Your task to perform on an android device: Open notification settings Image 0: 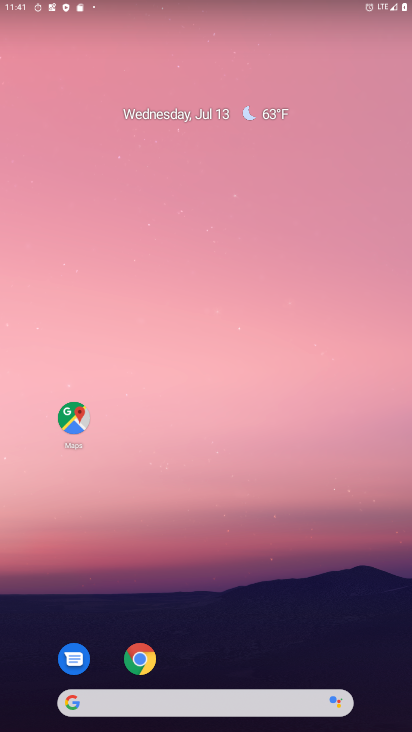
Step 0: drag from (267, 639) to (198, 103)
Your task to perform on an android device: Open notification settings Image 1: 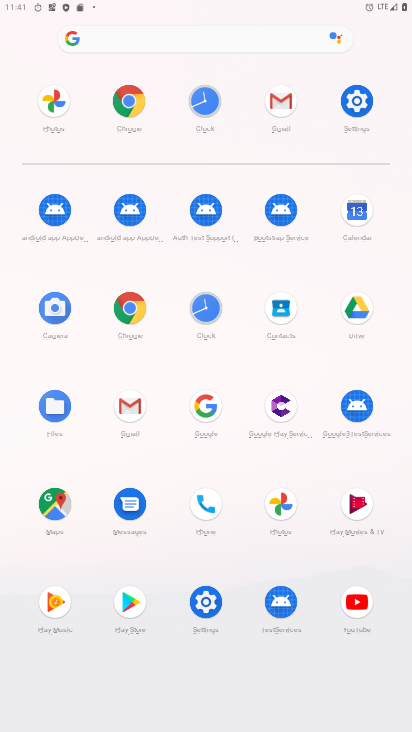
Step 1: click (361, 95)
Your task to perform on an android device: Open notification settings Image 2: 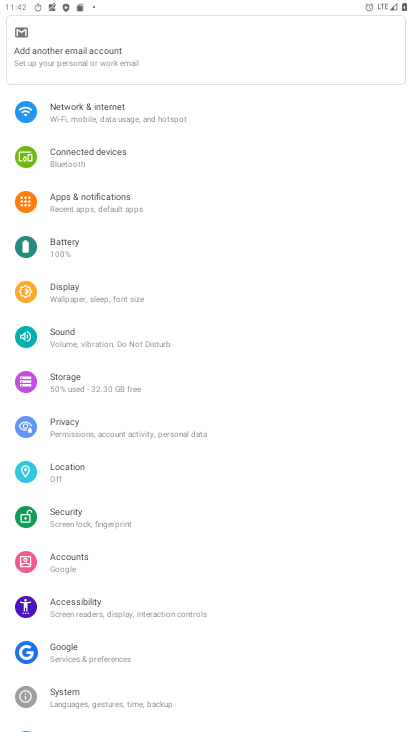
Step 2: click (95, 206)
Your task to perform on an android device: Open notification settings Image 3: 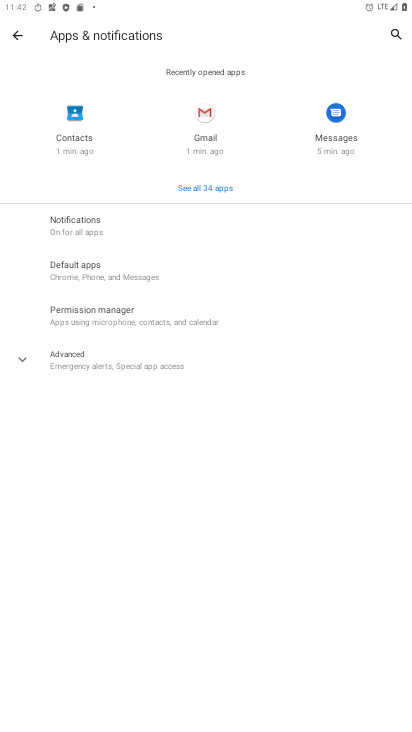
Step 3: click (84, 224)
Your task to perform on an android device: Open notification settings Image 4: 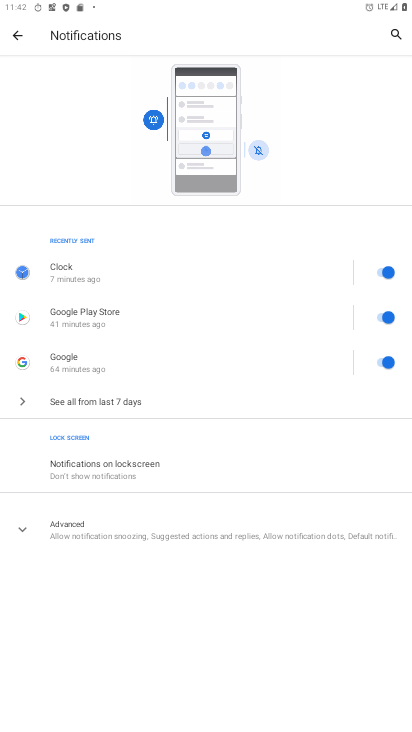
Step 4: task complete